Your task to perform on an android device: toggle notification dots Image 0: 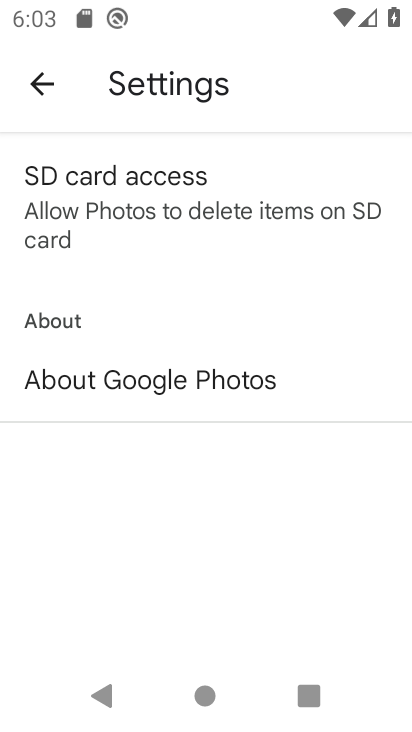
Step 0: press home button
Your task to perform on an android device: toggle notification dots Image 1: 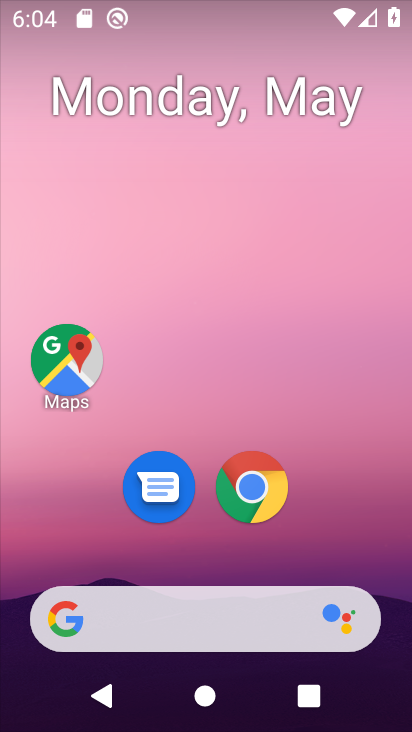
Step 1: drag from (210, 554) to (249, 68)
Your task to perform on an android device: toggle notification dots Image 2: 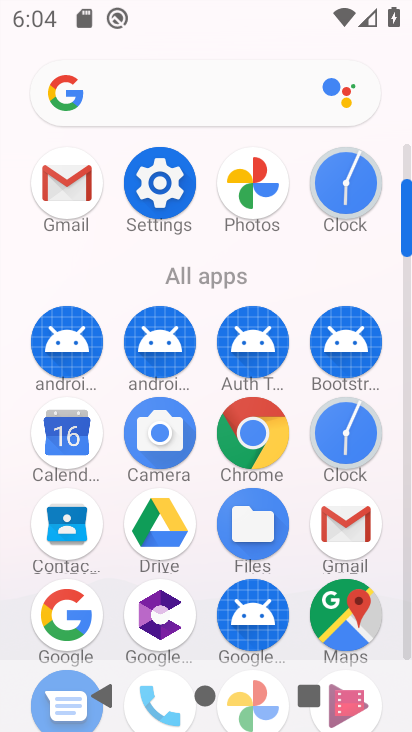
Step 2: click (157, 182)
Your task to perform on an android device: toggle notification dots Image 3: 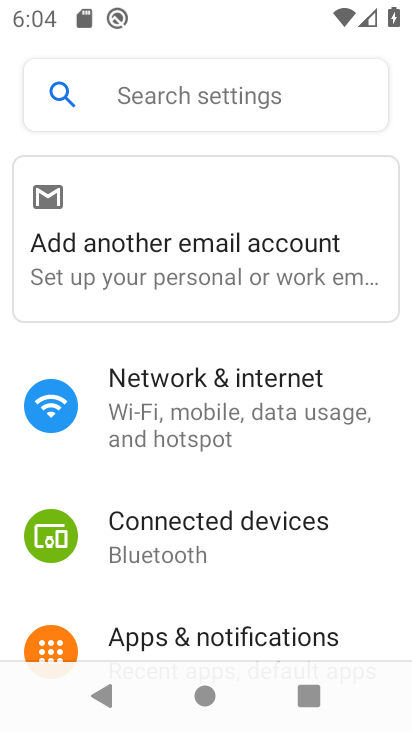
Step 3: click (246, 622)
Your task to perform on an android device: toggle notification dots Image 4: 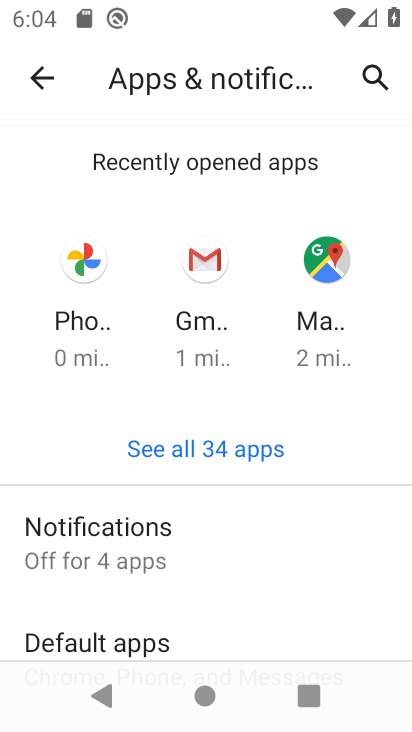
Step 4: click (180, 528)
Your task to perform on an android device: toggle notification dots Image 5: 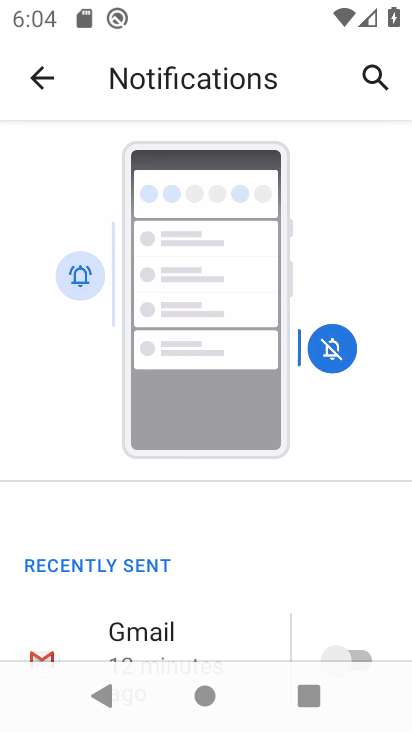
Step 5: drag from (237, 625) to (239, 363)
Your task to perform on an android device: toggle notification dots Image 6: 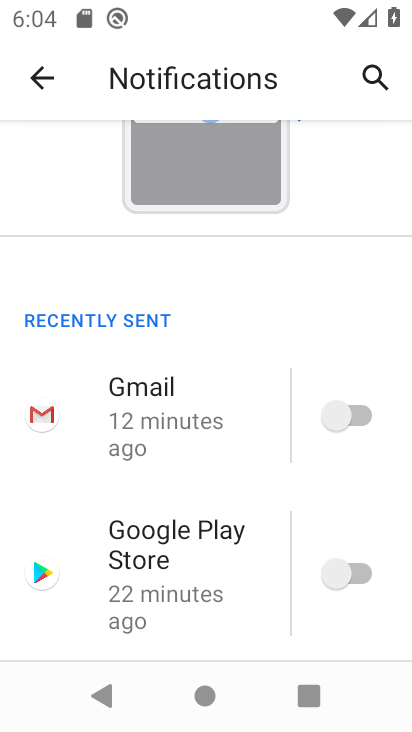
Step 6: drag from (219, 629) to (229, 121)
Your task to perform on an android device: toggle notification dots Image 7: 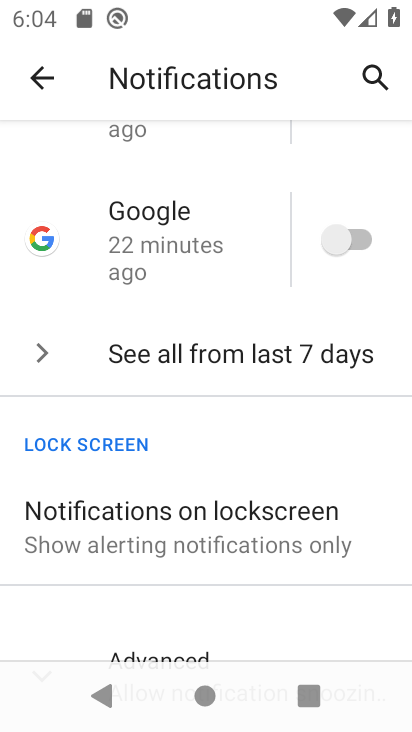
Step 7: drag from (220, 552) to (237, 381)
Your task to perform on an android device: toggle notification dots Image 8: 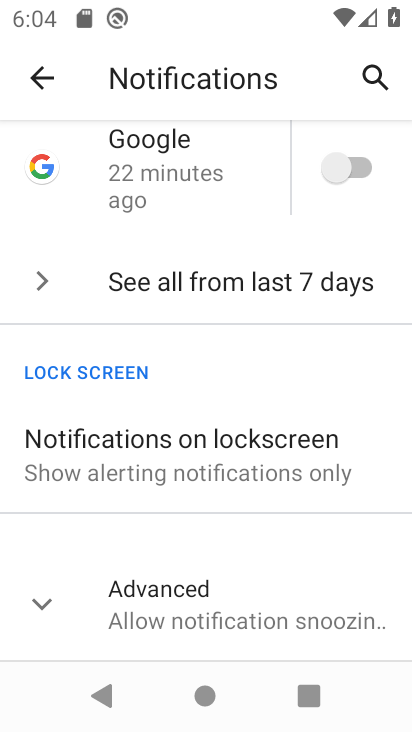
Step 8: click (46, 590)
Your task to perform on an android device: toggle notification dots Image 9: 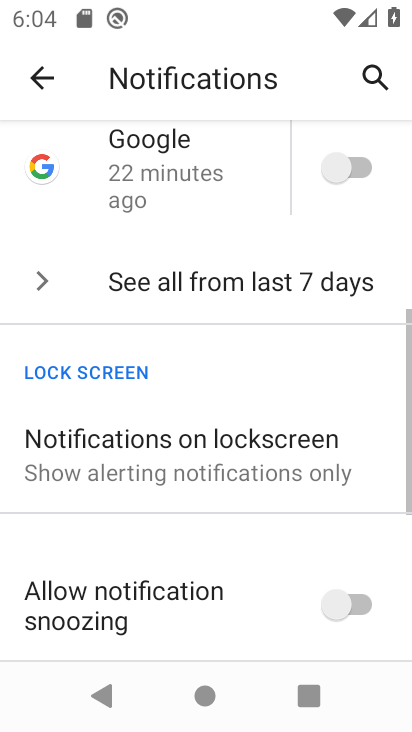
Step 9: drag from (213, 626) to (246, 236)
Your task to perform on an android device: toggle notification dots Image 10: 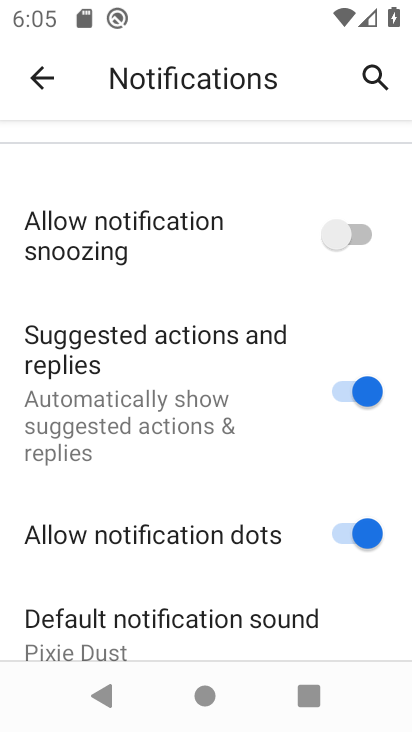
Step 10: click (342, 529)
Your task to perform on an android device: toggle notification dots Image 11: 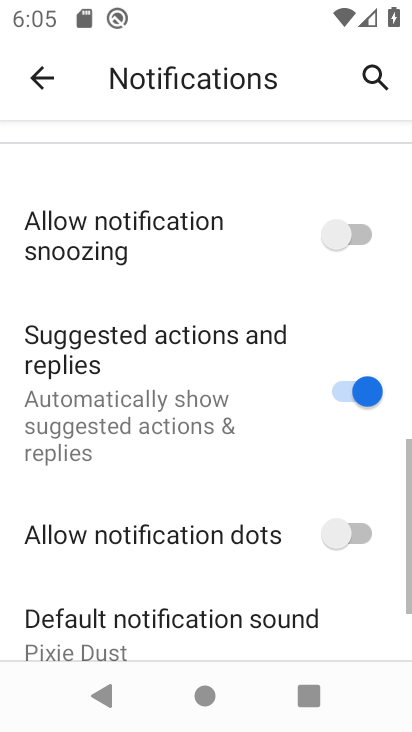
Step 11: task complete